Your task to perform on an android device: Open location settings Image 0: 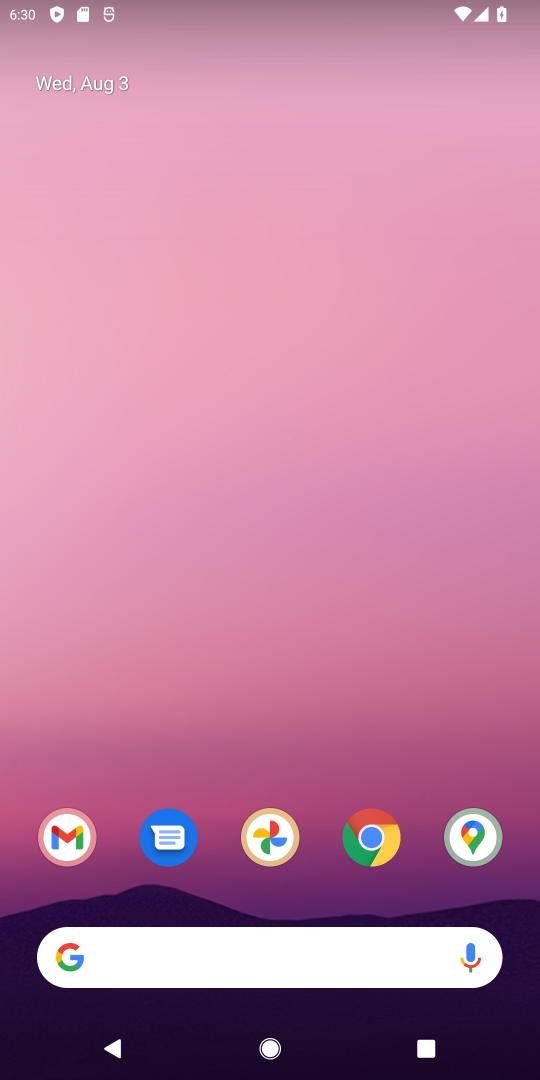
Step 0: press home button
Your task to perform on an android device: Open location settings Image 1: 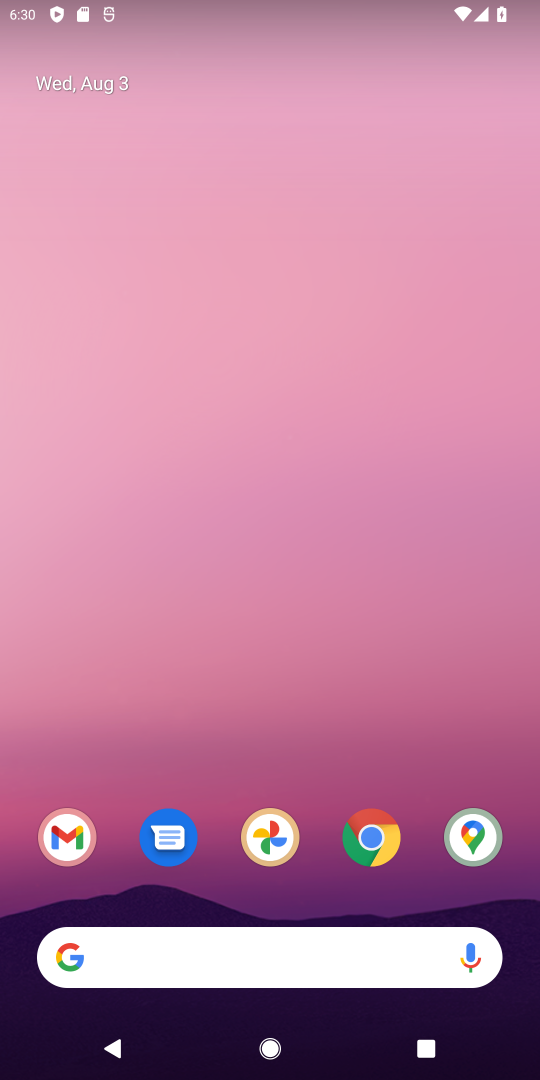
Step 1: drag from (309, 778) to (366, 98)
Your task to perform on an android device: Open location settings Image 2: 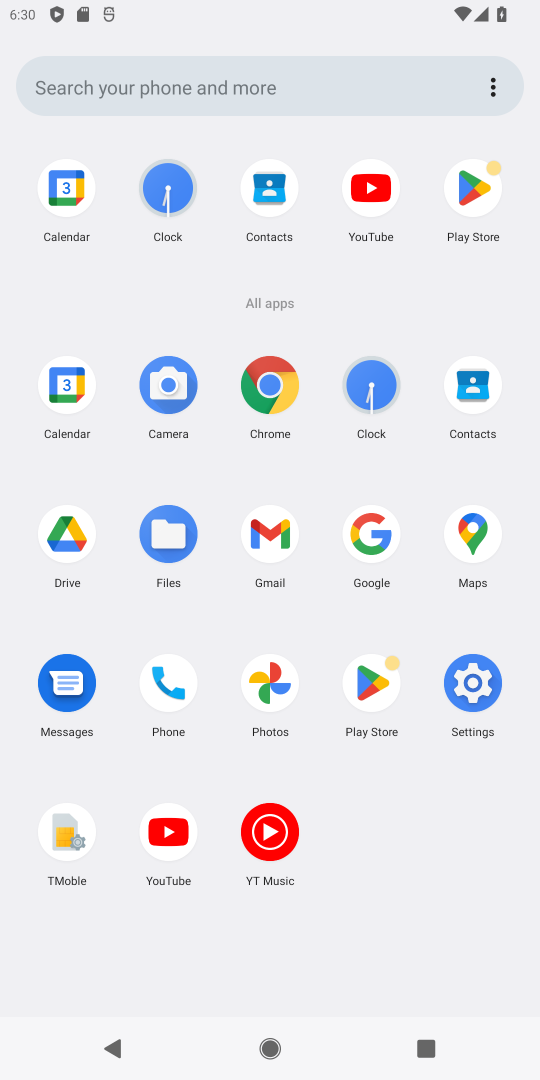
Step 2: click (469, 683)
Your task to perform on an android device: Open location settings Image 3: 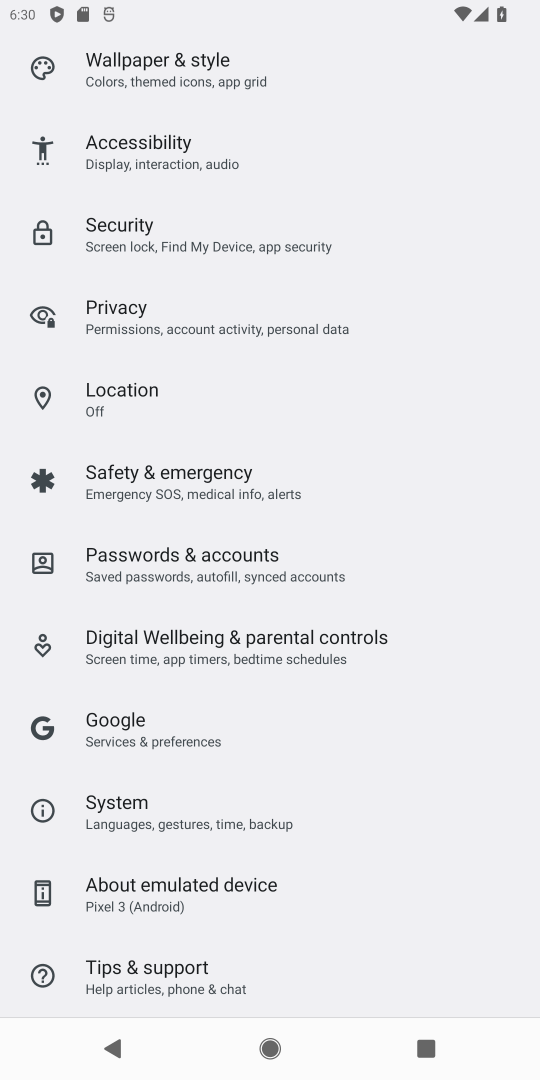
Step 3: drag from (351, 282) to (390, 897)
Your task to perform on an android device: Open location settings Image 4: 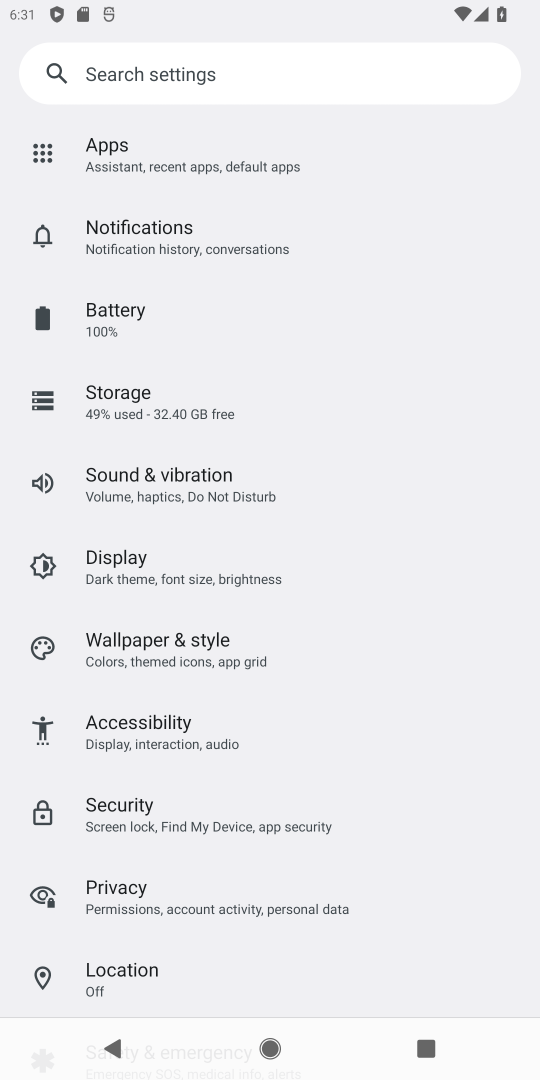
Step 4: click (149, 971)
Your task to perform on an android device: Open location settings Image 5: 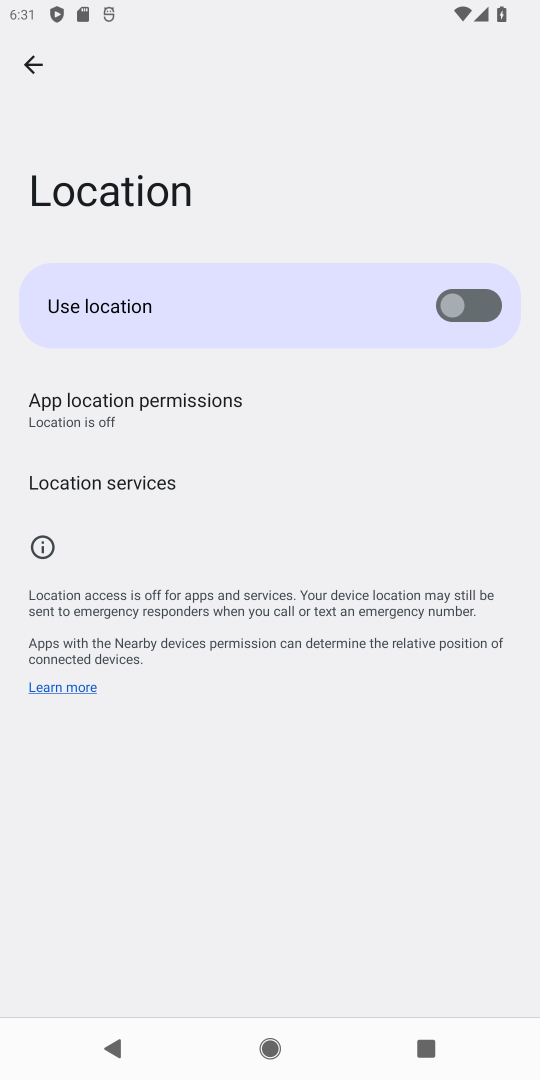
Step 5: task complete